Your task to perform on an android device: Turn off the flashlight Image 0: 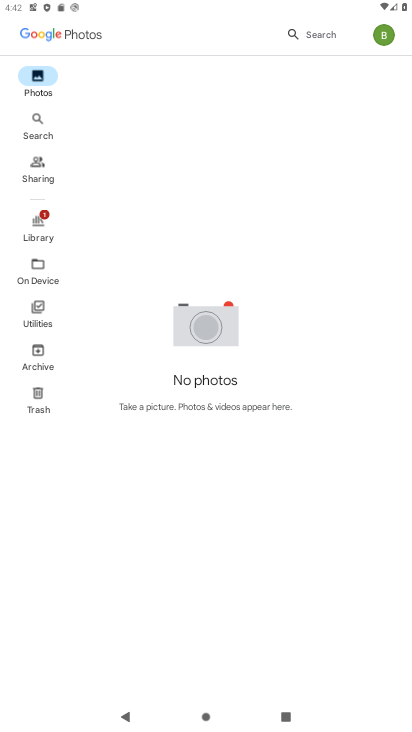
Step 0: press home button
Your task to perform on an android device: Turn off the flashlight Image 1: 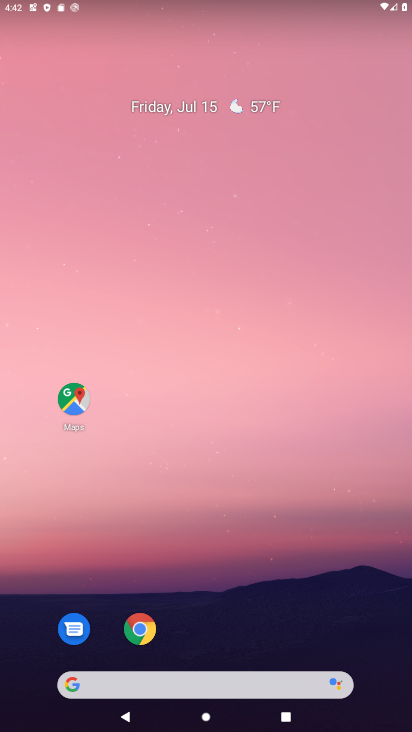
Step 1: task complete